Your task to perform on an android device: Open internet settings Image 0: 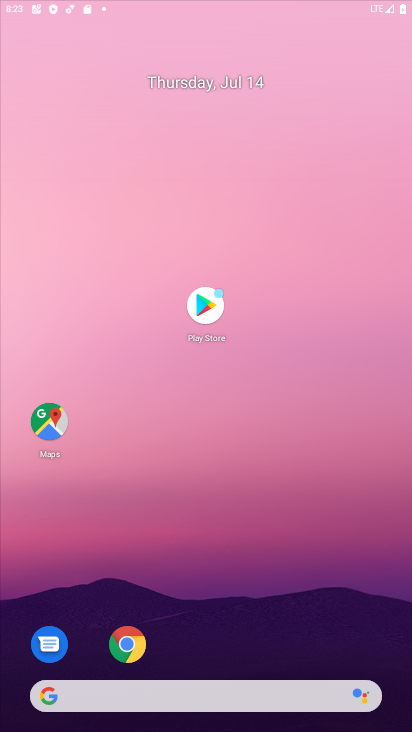
Step 0: click (282, 137)
Your task to perform on an android device: Open internet settings Image 1: 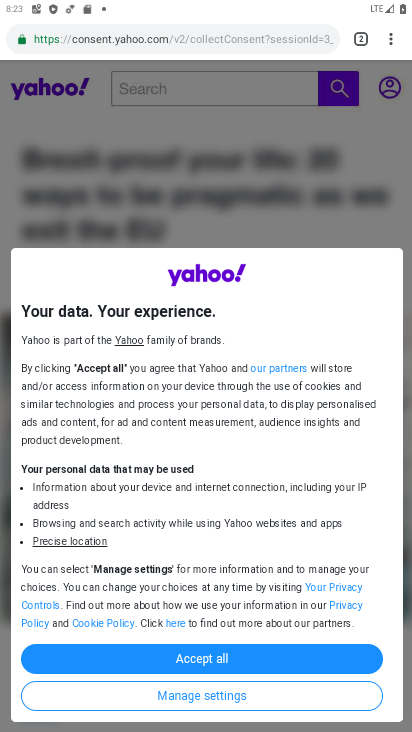
Step 1: press home button
Your task to perform on an android device: Open internet settings Image 2: 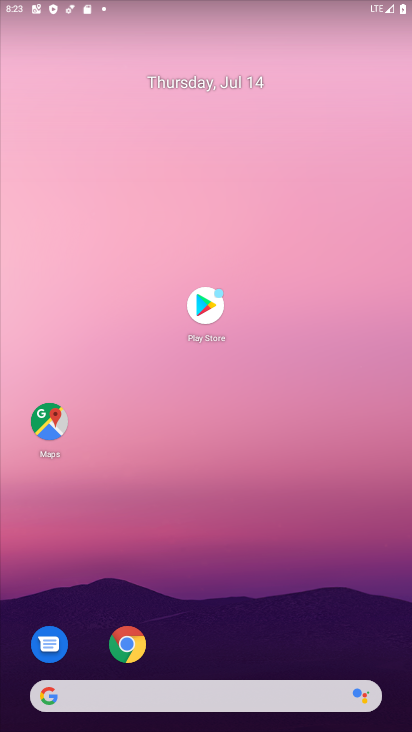
Step 2: drag from (211, 646) to (392, 39)
Your task to perform on an android device: Open internet settings Image 3: 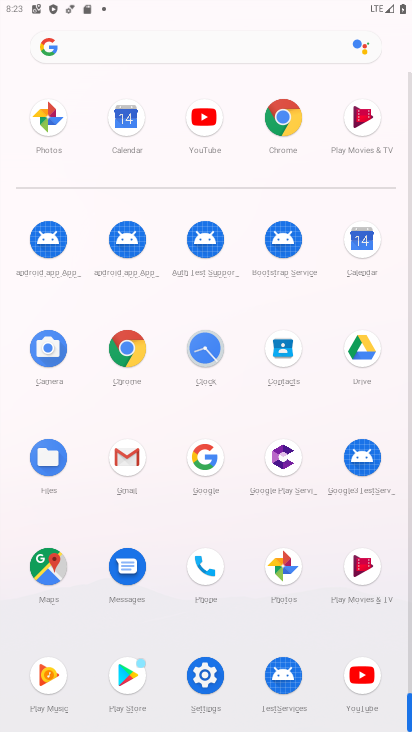
Step 3: click (203, 676)
Your task to perform on an android device: Open internet settings Image 4: 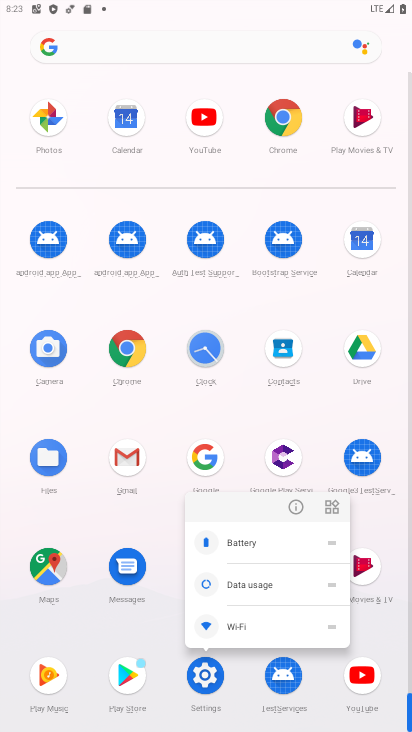
Step 4: click (282, 511)
Your task to perform on an android device: Open internet settings Image 5: 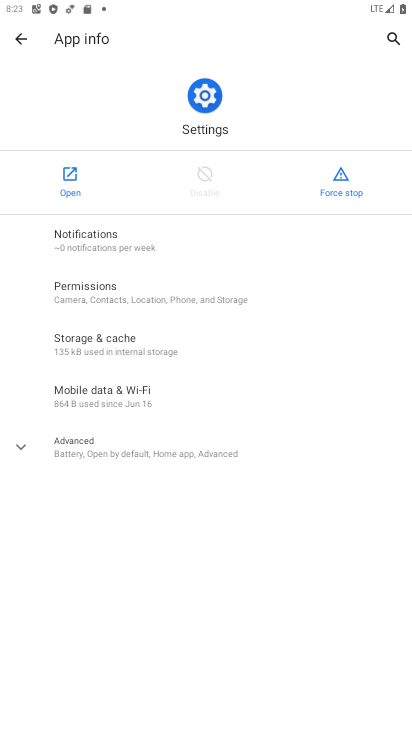
Step 5: click (74, 179)
Your task to perform on an android device: Open internet settings Image 6: 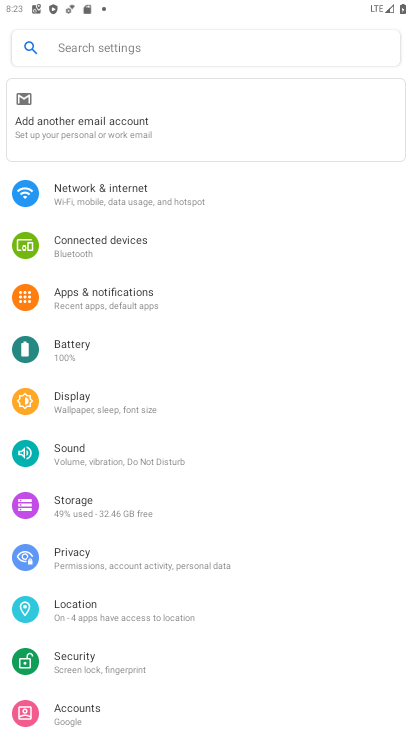
Step 6: click (107, 206)
Your task to perform on an android device: Open internet settings Image 7: 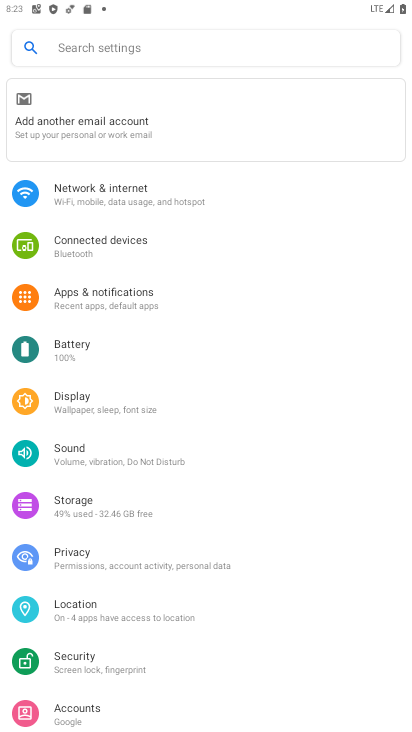
Step 7: click (107, 206)
Your task to perform on an android device: Open internet settings Image 8: 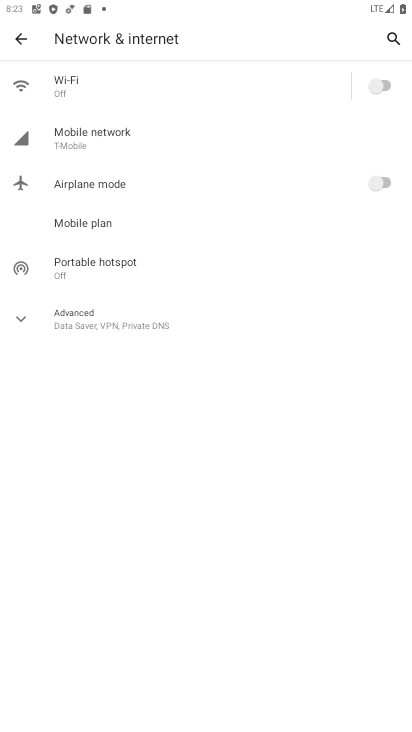
Step 8: task complete